Your task to perform on an android device: Open Google Image 0: 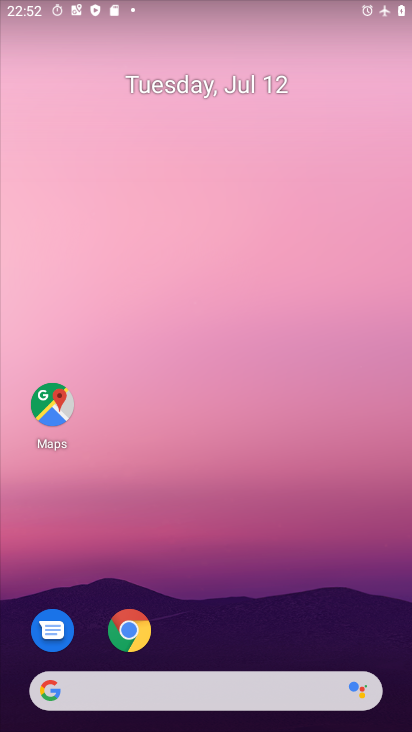
Step 0: drag from (224, 625) to (313, 19)
Your task to perform on an android device: Open Google Image 1: 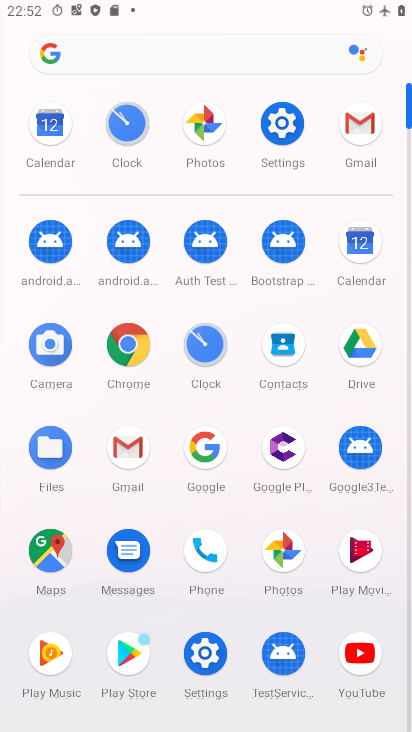
Step 1: click (200, 442)
Your task to perform on an android device: Open Google Image 2: 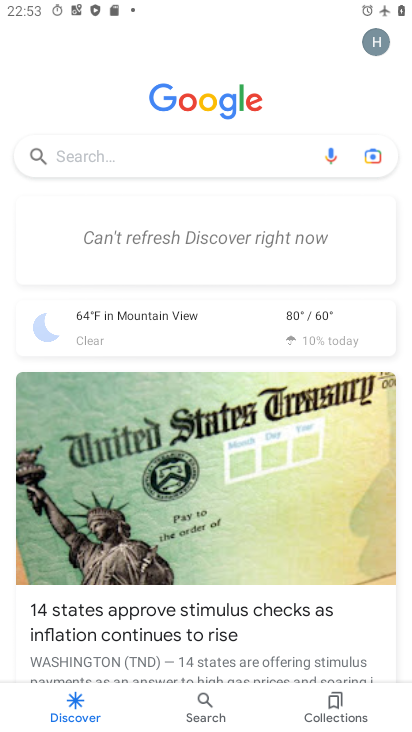
Step 2: task complete